Your task to perform on an android device: Search for the best selling vase on Crate & Barrel Image 0: 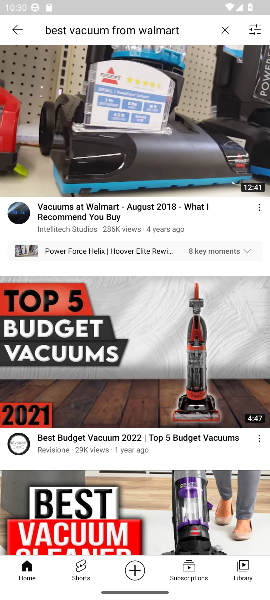
Step 0: press home button
Your task to perform on an android device: Search for the best selling vase on Crate & Barrel Image 1: 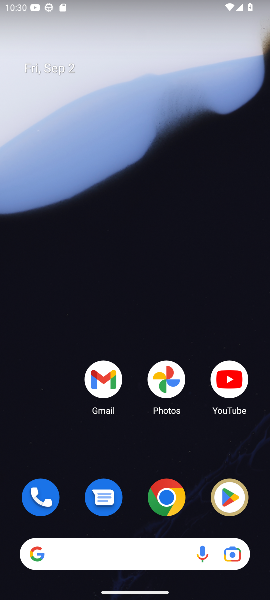
Step 1: drag from (136, 325) to (136, 261)
Your task to perform on an android device: Search for the best selling vase on Crate & Barrel Image 2: 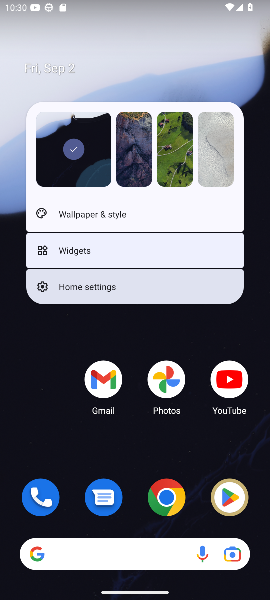
Step 2: click (139, 529)
Your task to perform on an android device: Search for the best selling vase on Crate & Barrel Image 3: 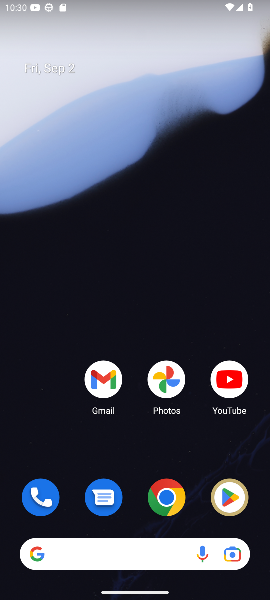
Step 3: drag from (139, 529) to (135, 229)
Your task to perform on an android device: Search for the best selling vase on Crate & Barrel Image 4: 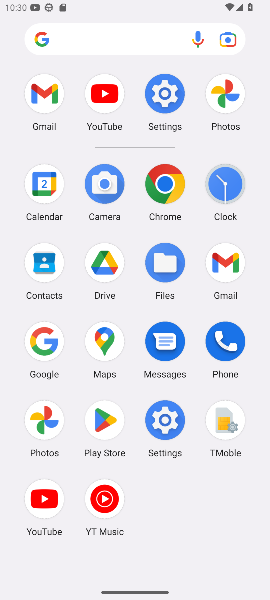
Step 4: click (37, 347)
Your task to perform on an android device: Search for the best selling vase on Crate & Barrel Image 5: 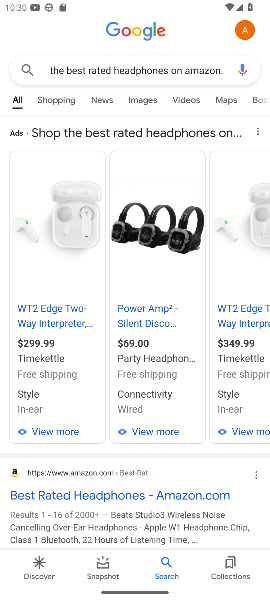
Step 5: click (118, 75)
Your task to perform on an android device: Search for the best selling vase on Crate & Barrel Image 6: 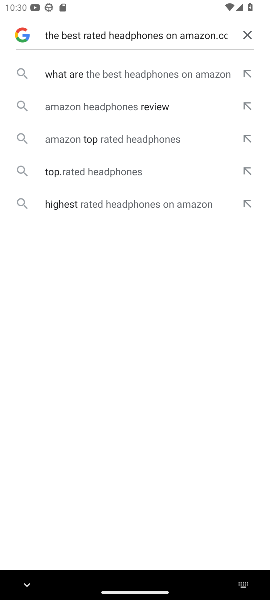
Step 6: click (249, 31)
Your task to perform on an android device: Search for the best selling vase on Crate & Barrel Image 7: 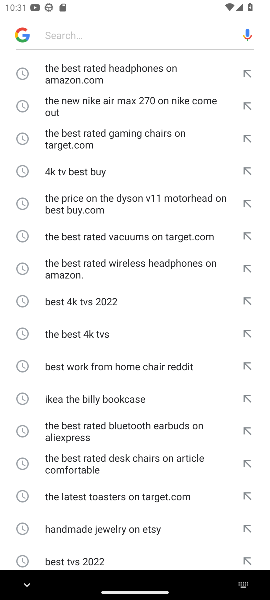
Step 7: type "the best selling vase on Crate & Barrel"
Your task to perform on an android device: Search for the best selling vase on Crate & Barrel Image 8: 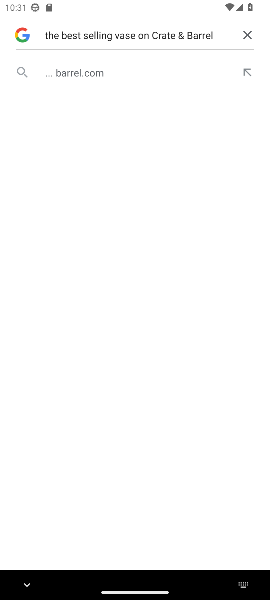
Step 8: click (59, 75)
Your task to perform on an android device: Search for the best selling vase on Crate & Barrel Image 9: 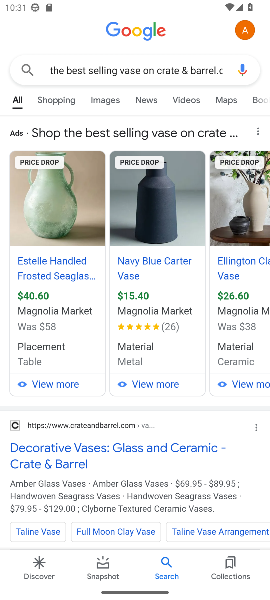
Step 9: click (172, 154)
Your task to perform on an android device: Search for the best selling vase on Crate & Barrel Image 10: 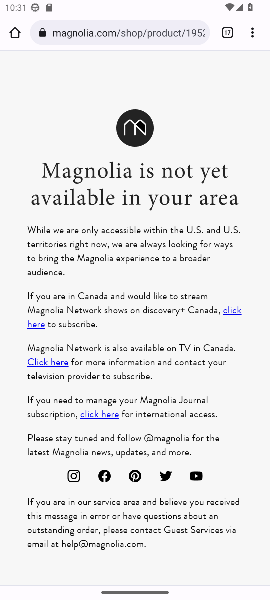
Step 10: task complete